Your task to perform on an android device: Turn off the flashlight Image 0: 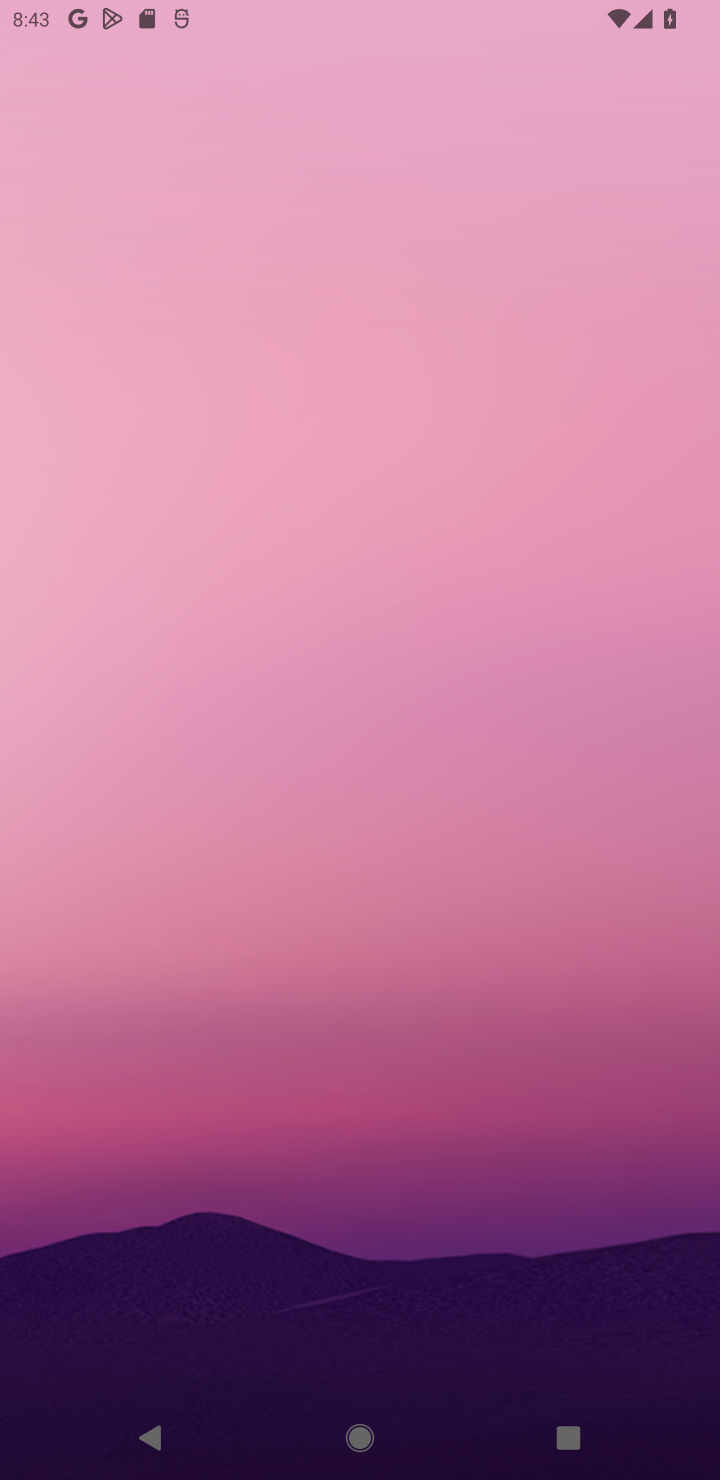
Step 0: press back button
Your task to perform on an android device: Turn off the flashlight Image 1: 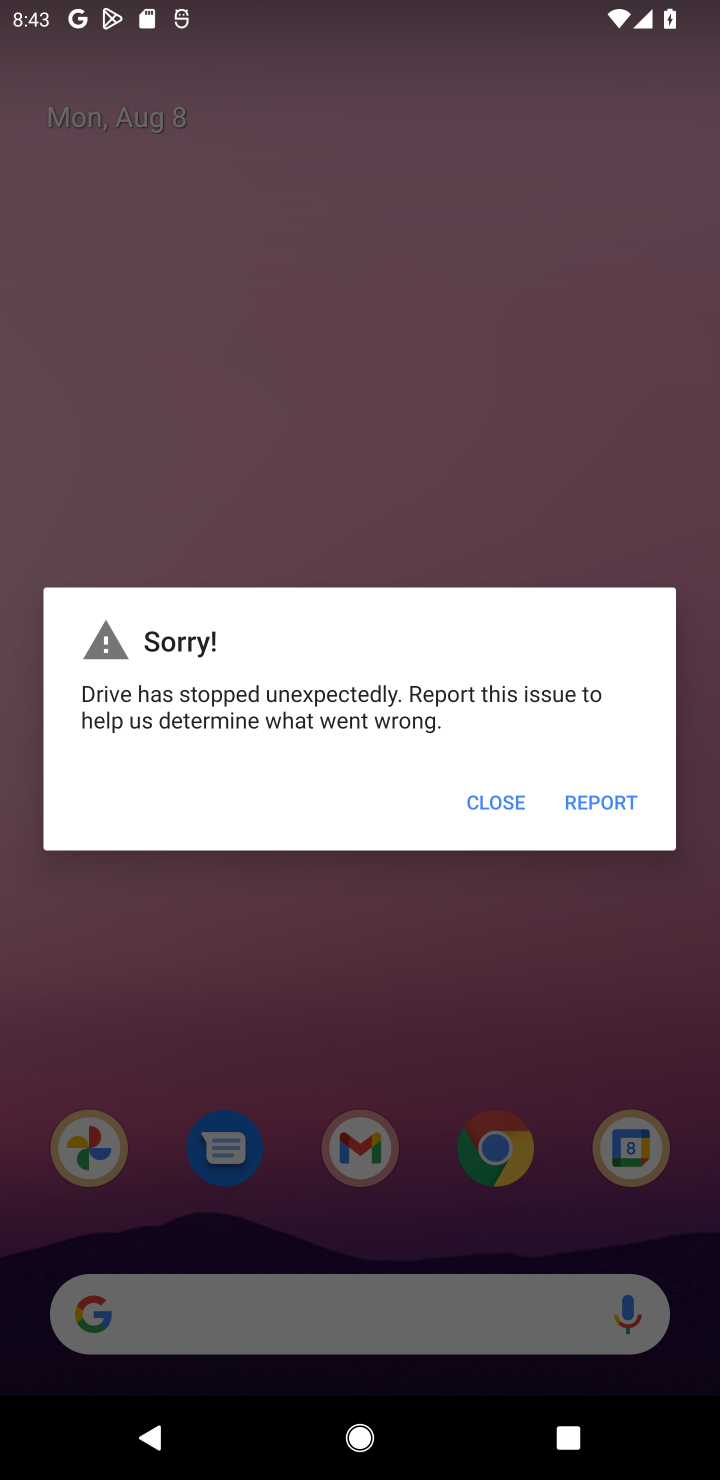
Step 1: click (488, 802)
Your task to perform on an android device: Turn off the flashlight Image 2: 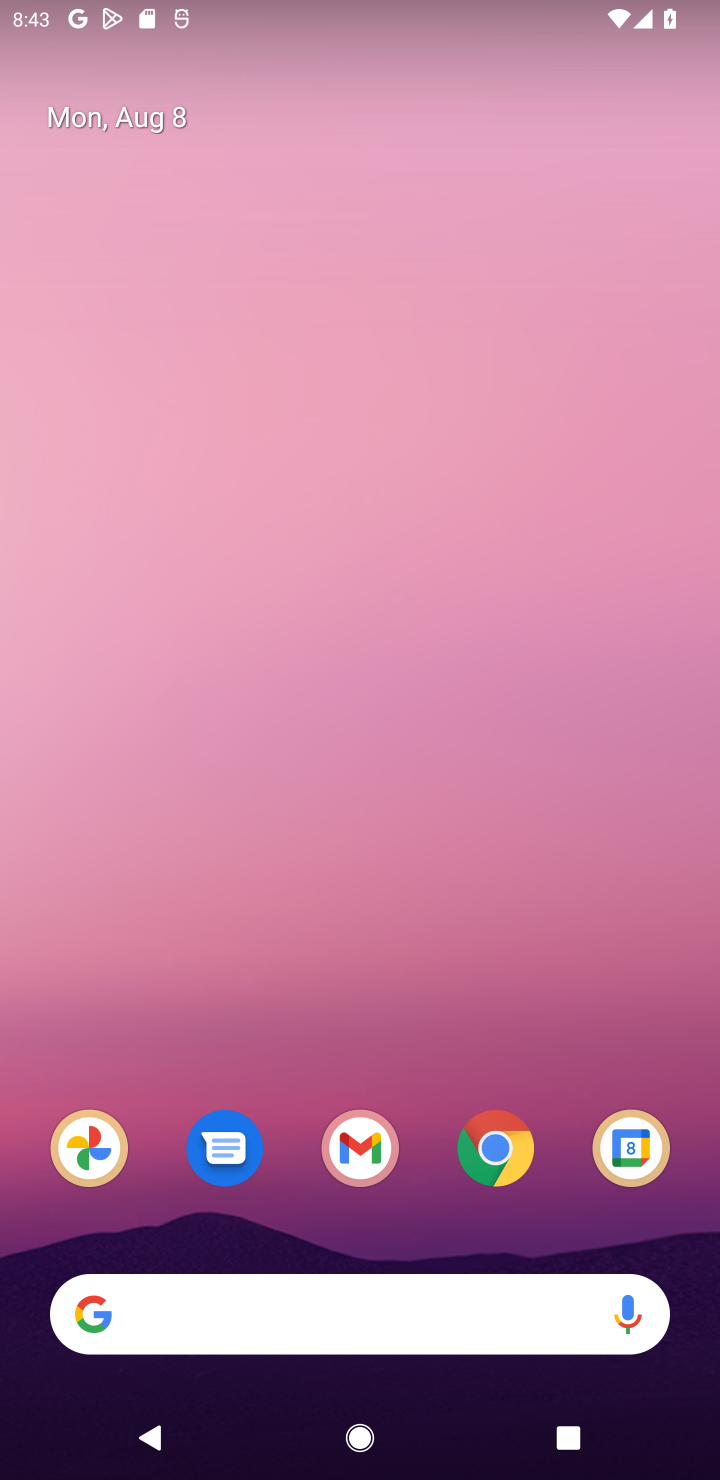
Step 2: task complete